Your task to perform on an android device: Open Wikipedia Image 0: 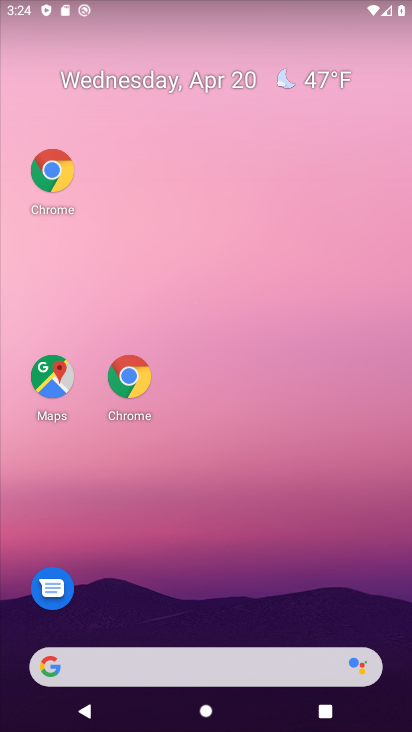
Step 0: drag from (306, 586) to (319, 94)
Your task to perform on an android device: Open Wikipedia Image 1: 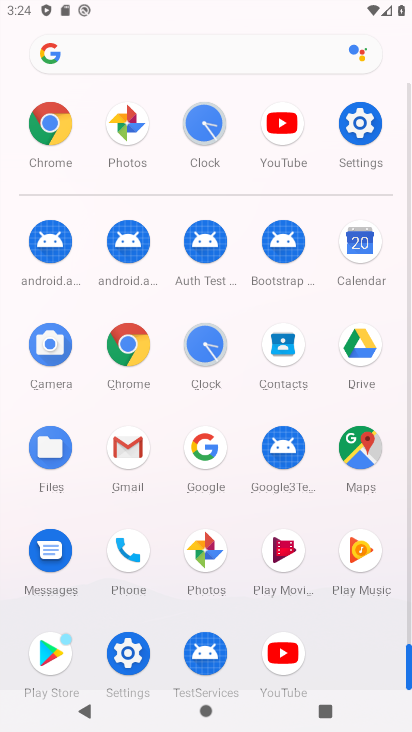
Step 1: click (115, 342)
Your task to perform on an android device: Open Wikipedia Image 2: 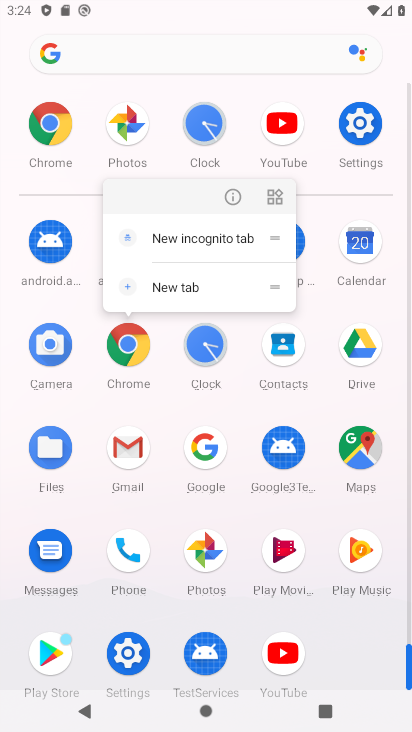
Step 2: click (115, 342)
Your task to perform on an android device: Open Wikipedia Image 3: 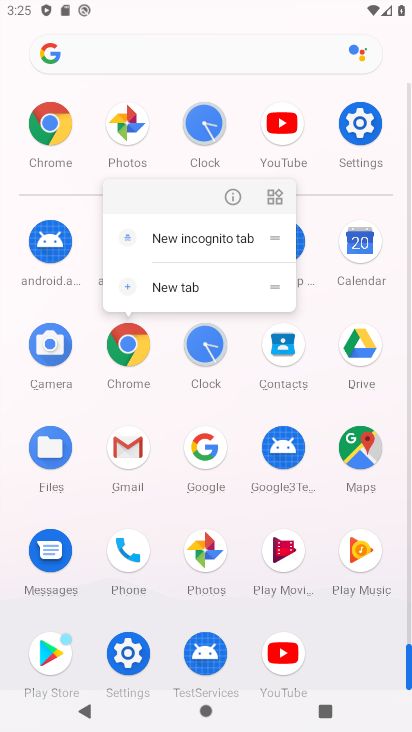
Step 3: click (126, 345)
Your task to perform on an android device: Open Wikipedia Image 4: 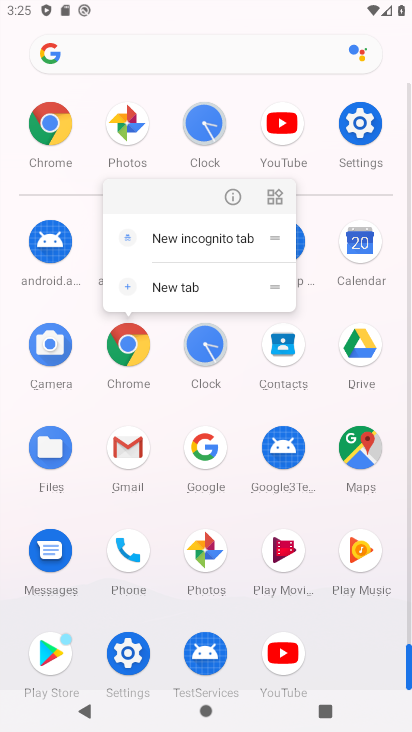
Step 4: click (126, 345)
Your task to perform on an android device: Open Wikipedia Image 5: 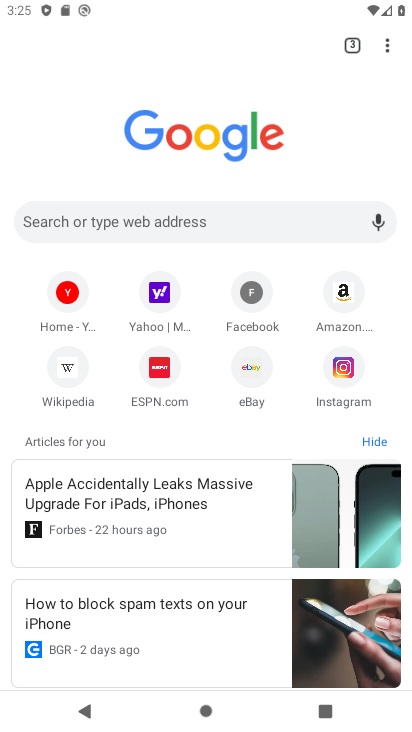
Step 5: click (271, 233)
Your task to perform on an android device: Open Wikipedia Image 6: 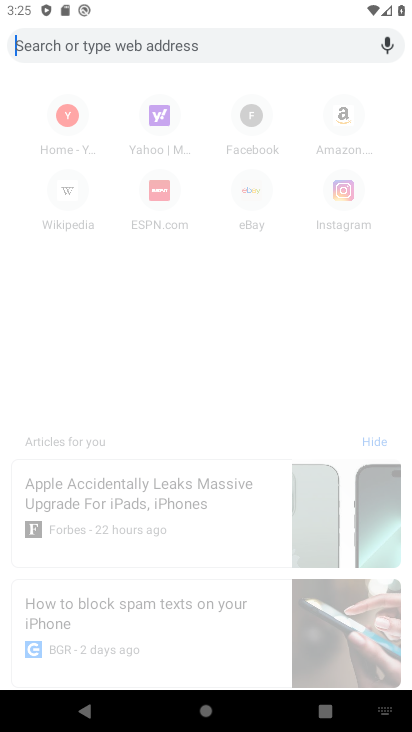
Step 6: press back button
Your task to perform on an android device: Open Wikipedia Image 7: 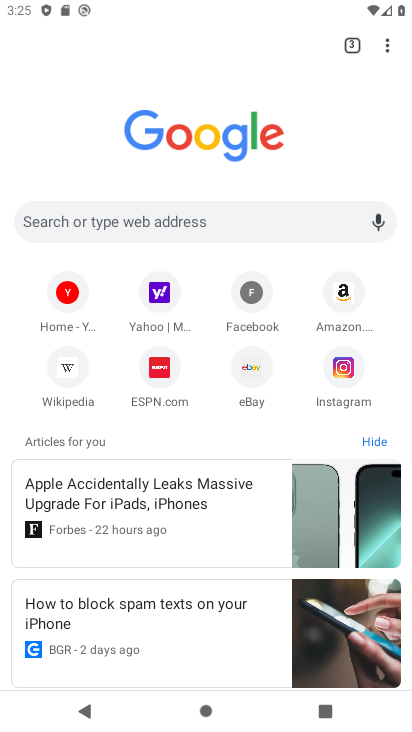
Step 7: click (62, 367)
Your task to perform on an android device: Open Wikipedia Image 8: 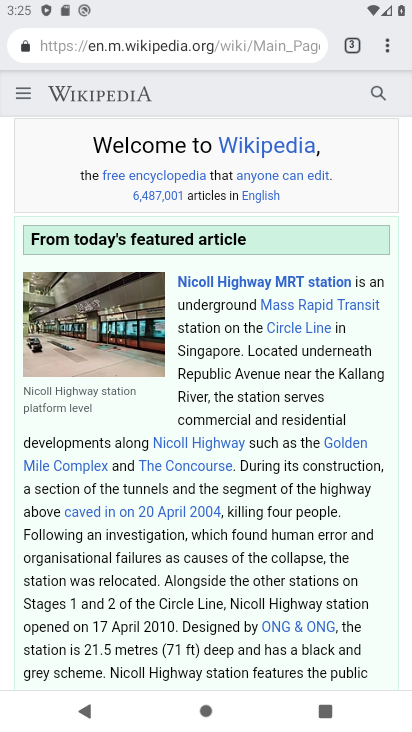
Step 8: task complete